Your task to perform on an android device: Open accessibility settings Image 0: 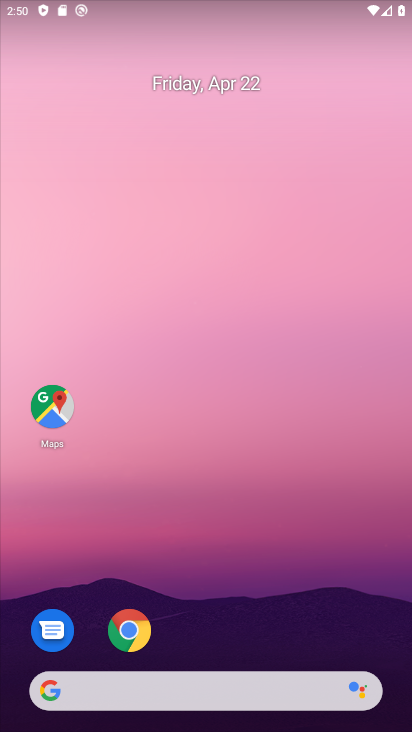
Step 0: drag from (263, 557) to (187, 109)
Your task to perform on an android device: Open accessibility settings Image 1: 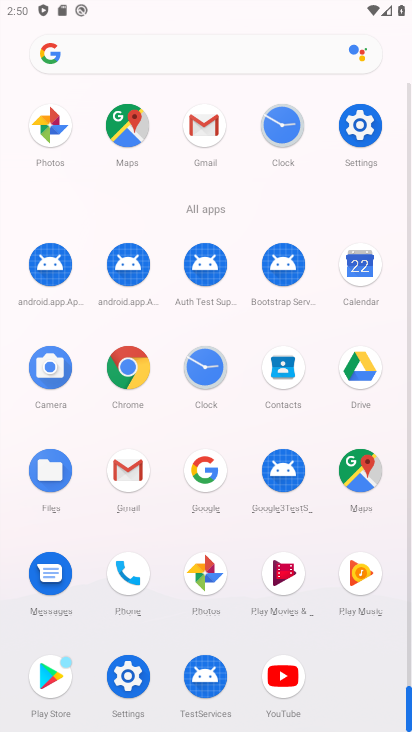
Step 1: click (126, 675)
Your task to perform on an android device: Open accessibility settings Image 2: 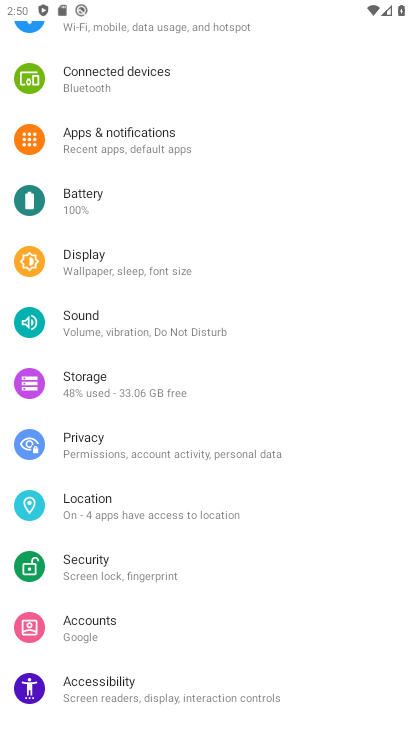
Step 2: drag from (322, 532) to (305, 135)
Your task to perform on an android device: Open accessibility settings Image 3: 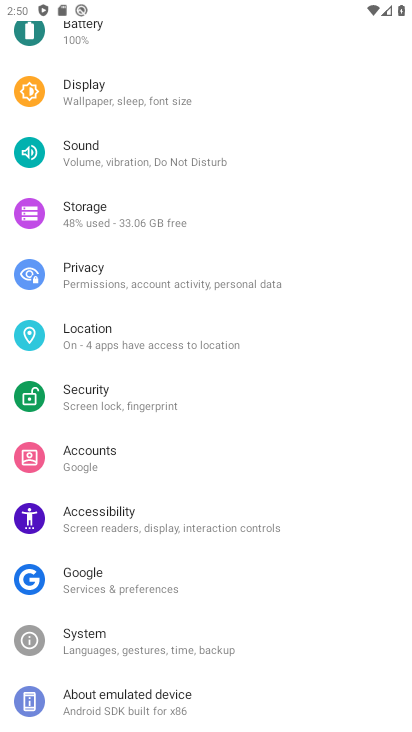
Step 3: drag from (307, 515) to (305, 138)
Your task to perform on an android device: Open accessibility settings Image 4: 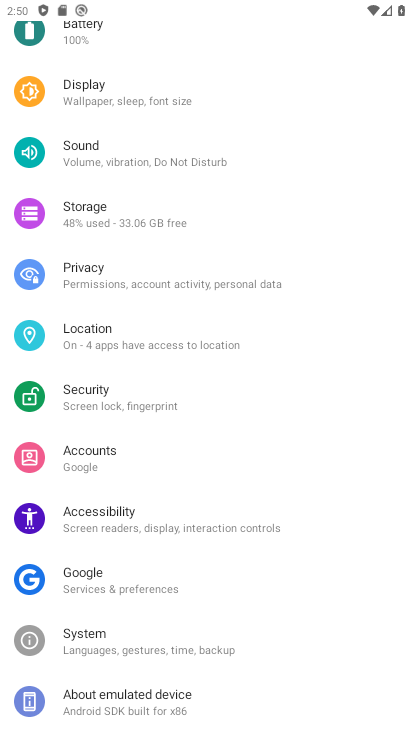
Step 4: click (158, 519)
Your task to perform on an android device: Open accessibility settings Image 5: 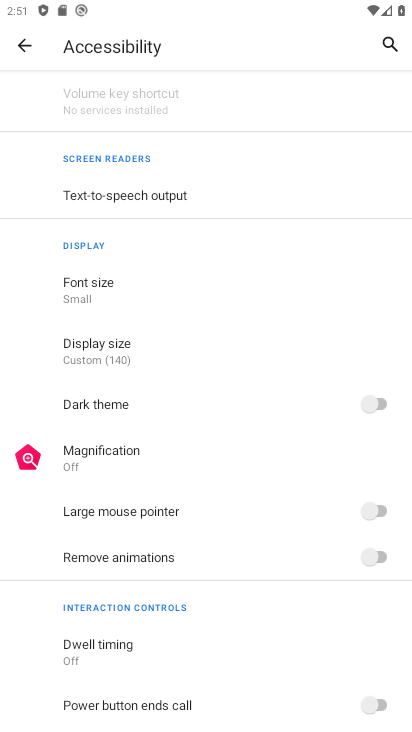
Step 5: task complete